Your task to perform on an android device: stop showing notifications on the lock screen Image 0: 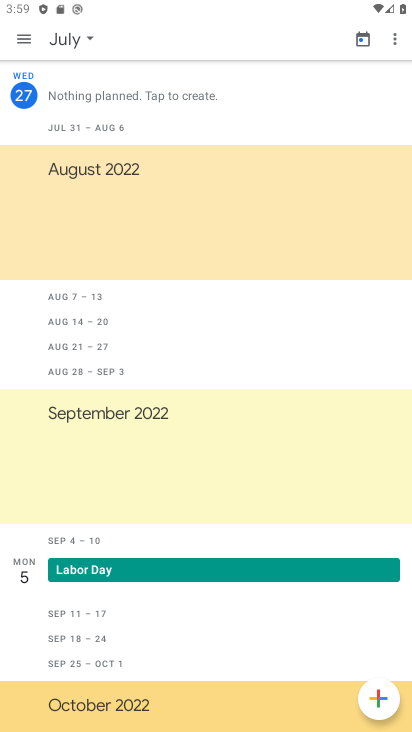
Step 0: press home button
Your task to perform on an android device: stop showing notifications on the lock screen Image 1: 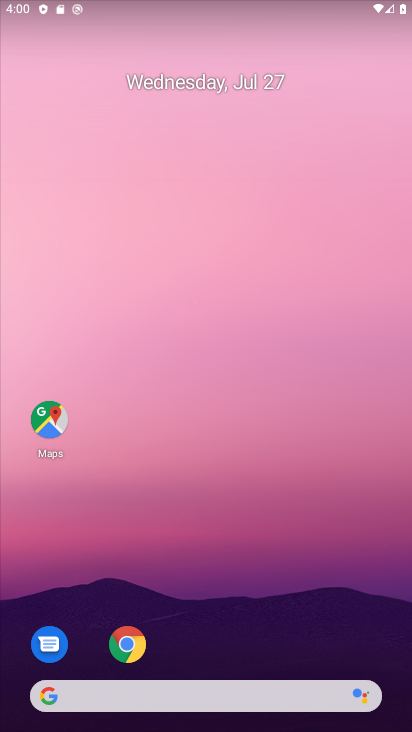
Step 1: drag from (310, 356) to (318, 166)
Your task to perform on an android device: stop showing notifications on the lock screen Image 2: 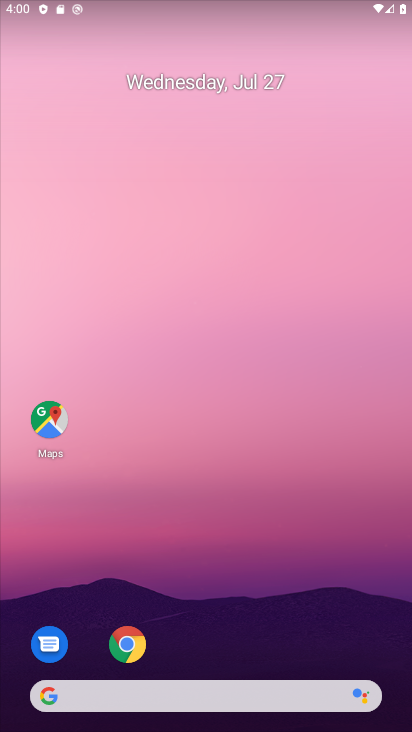
Step 2: drag from (315, 387) to (327, 297)
Your task to perform on an android device: stop showing notifications on the lock screen Image 3: 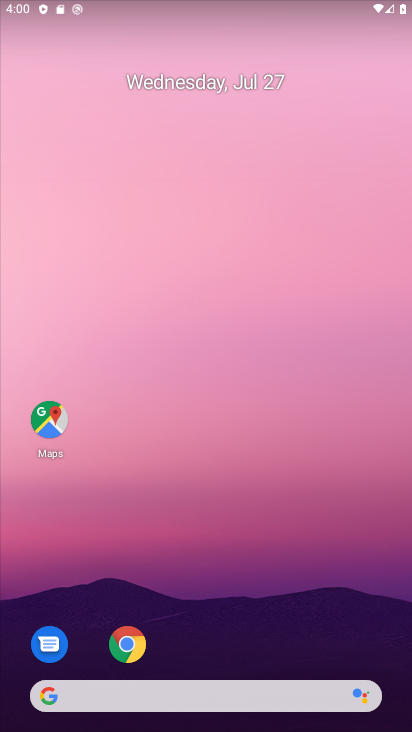
Step 3: drag from (322, 493) to (353, 219)
Your task to perform on an android device: stop showing notifications on the lock screen Image 4: 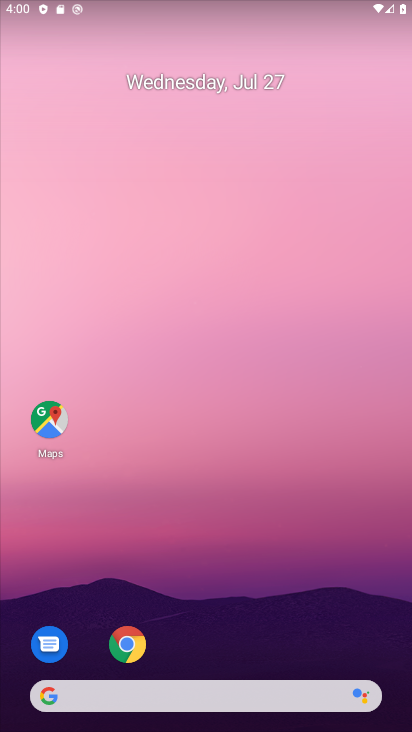
Step 4: drag from (266, 614) to (275, 200)
Your task to perform on an android device: stop showing notifications on the lock screen Image 5: 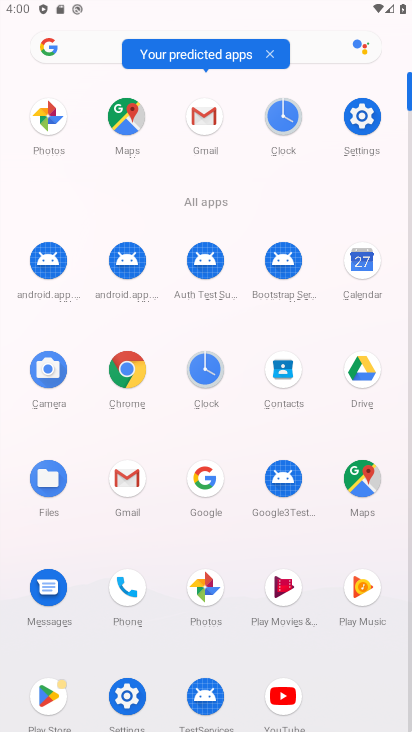
Step 5: click (360, 115)
Your task to perform on an android device: stop showing notifications on the lock screen Image 6: 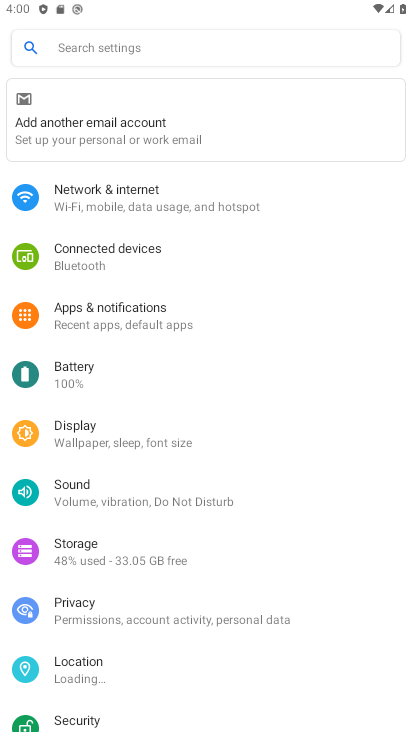
Step 6: task complete